Your task to perform on an android device: open app "Adobe Acrobat Reader: Edit PDF" Image 0: 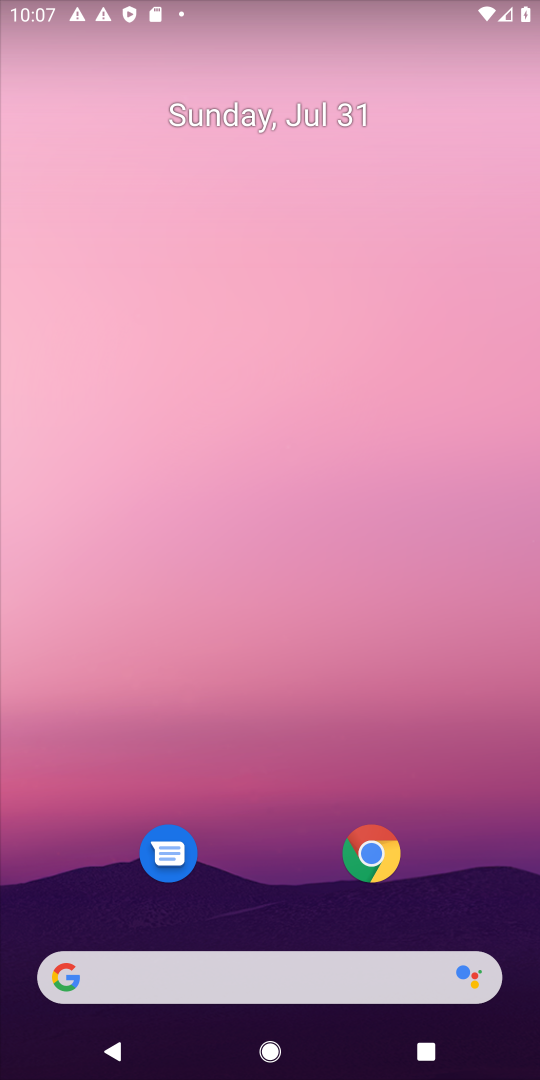
Step 0: drag from (305, 938) to (305, 33)
Your task to perform on an android device: open app "Adobe Acrobat Reader: Edit PDF" Image 1: 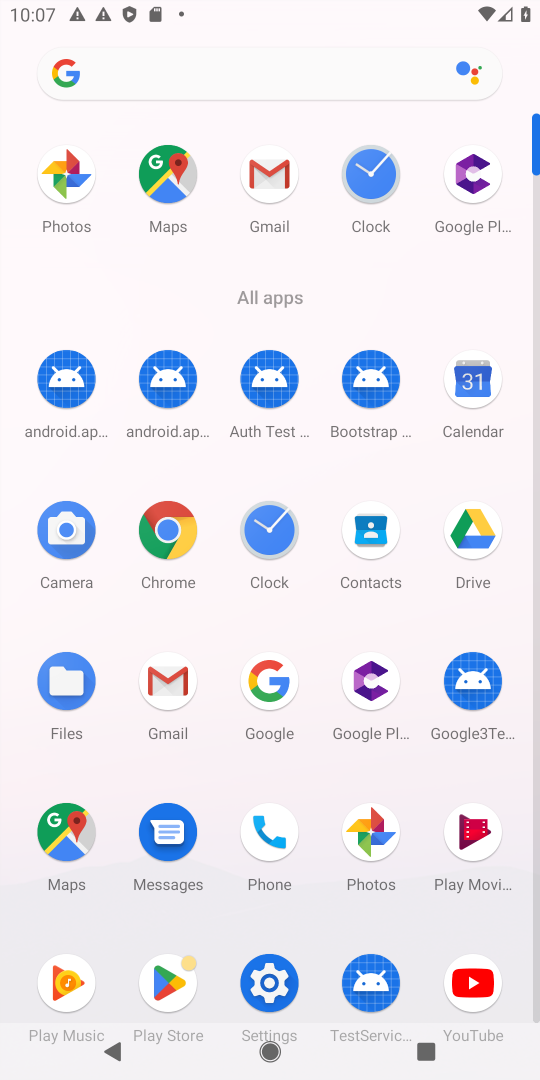
Step 1: drag from (185, 943) to (185, 398)
Your task to perform on an android device: open app "Adobe Acrobat Reader: Edit PDF" Image 2: 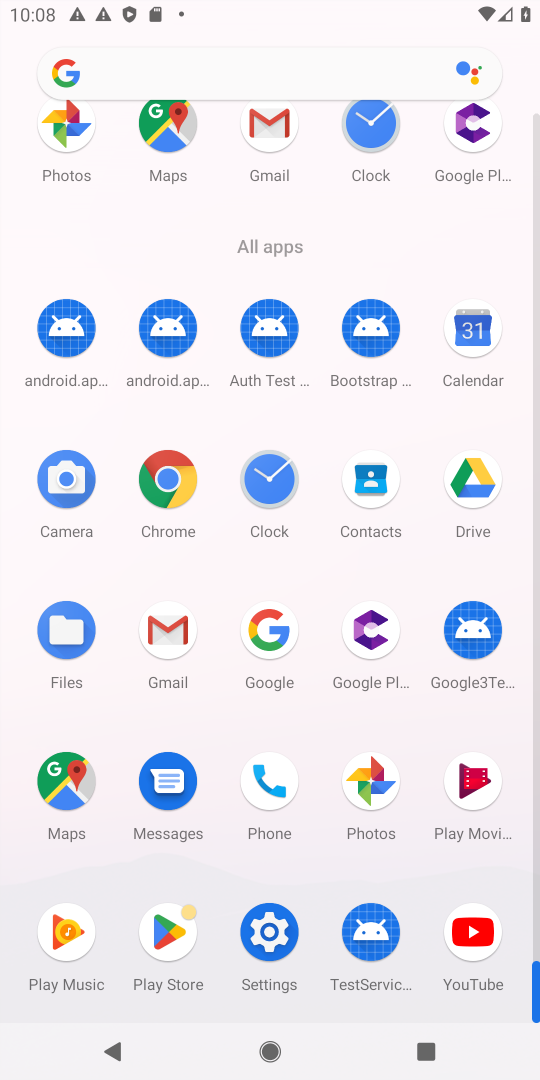
Step 2: click (172, 924)
Your task to perform on an android device: open app "Adobe Acrobat Reader: Edit PDF" Image 3: 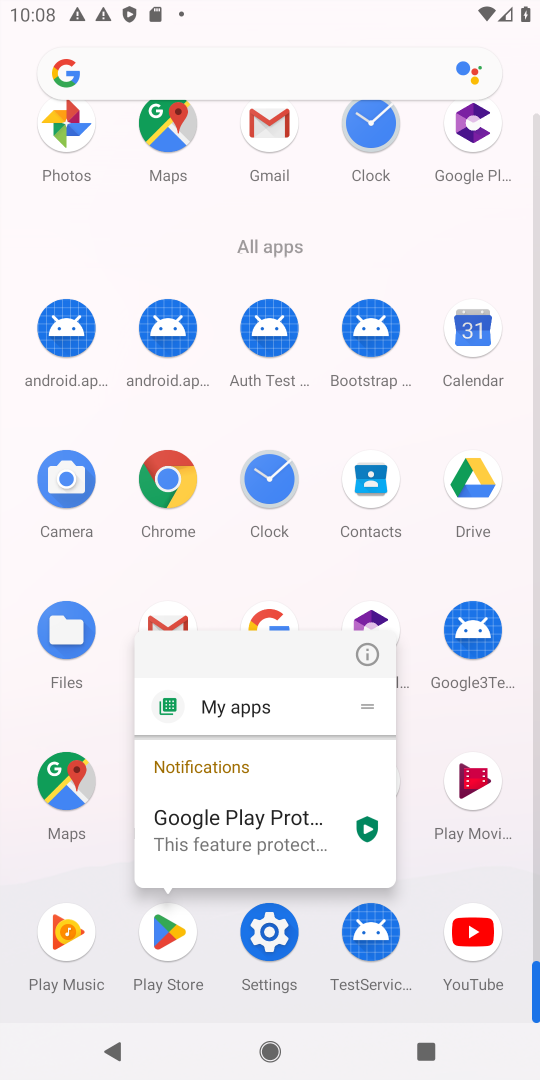
Step 3: click (174, 929)
Your task to perform on an android device: open app "Adobe Acrobat Reader: Edit PDF" Image 4: 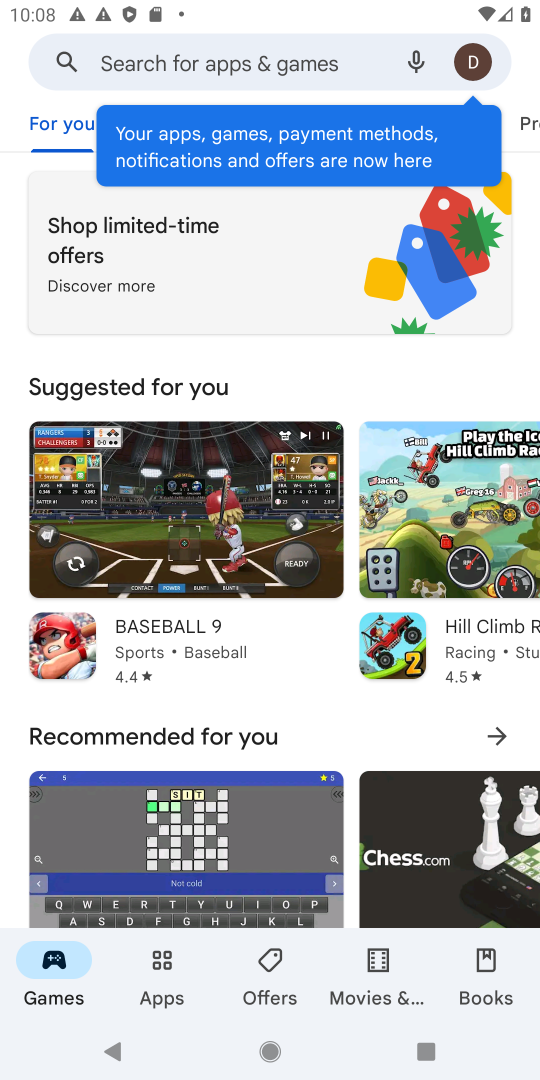
Step 4: click (217, 64)
Your task to perform on an android device: open app "Adobe Acrobat Reader: Edit PDF" Image 5: 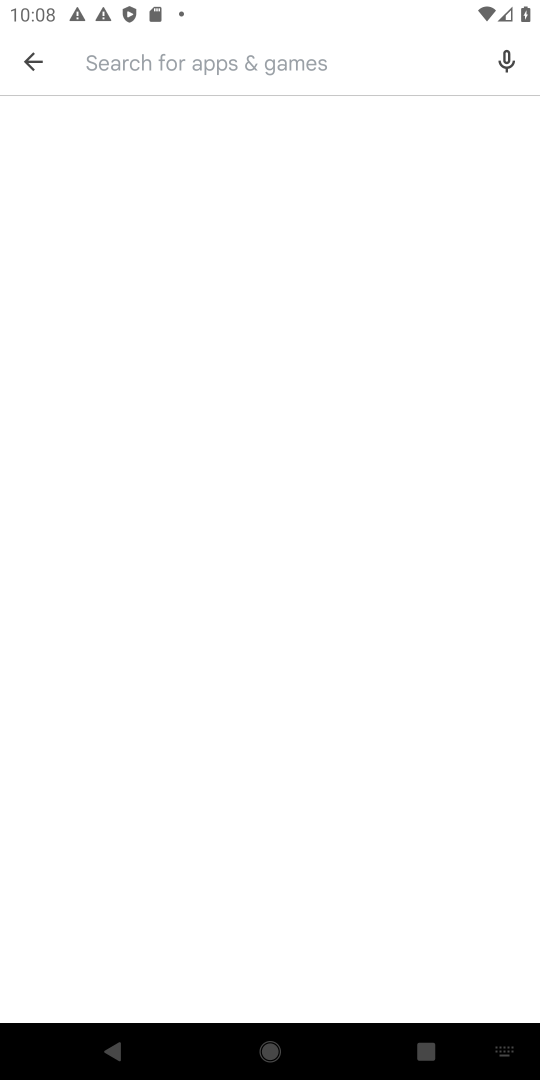
Step 5: type "Adobe Acrobat Reader: Edit PDF"
Your task to perform on an android device: open app "Adobe Acrobat Reader: Edit PDF" Image 6: 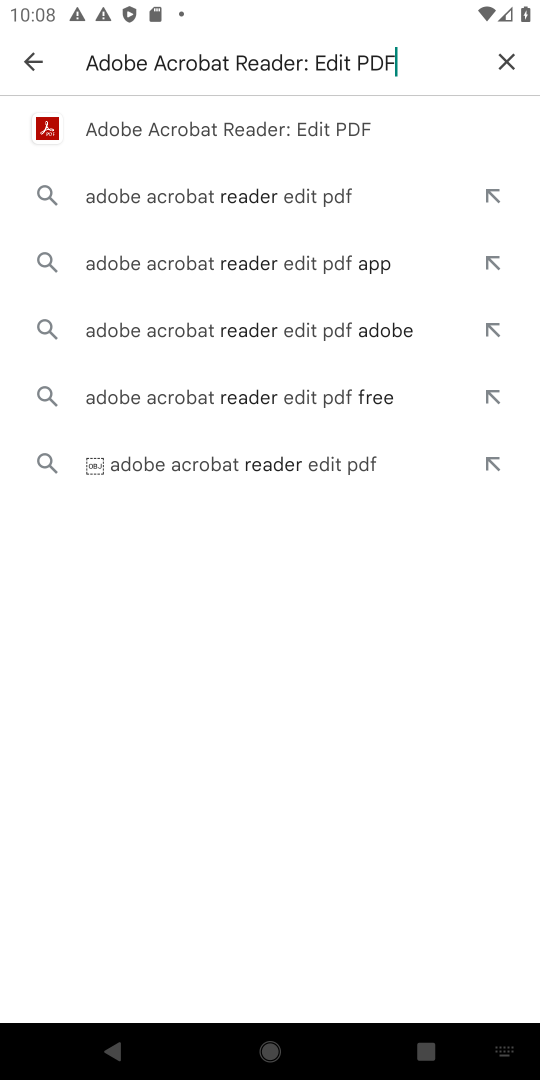
Step 6: click (186, 130)
Your task to perform on an android device: open app "Adobe Acrobat Reader: Edit PDF" Image 7: 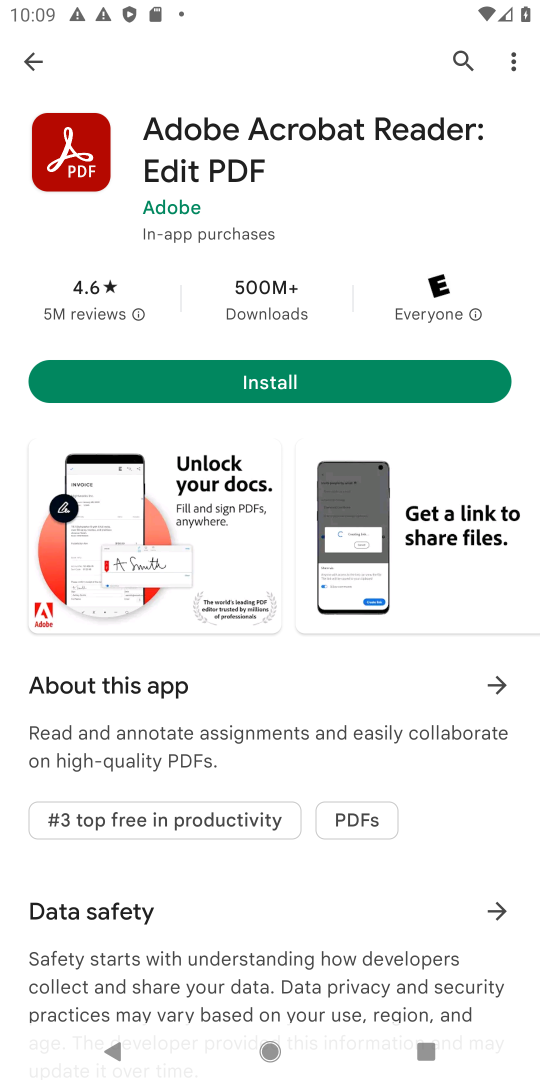
Step 7: task complete